Your task to perform on an android device: turn on bluetooth scan Image 0: 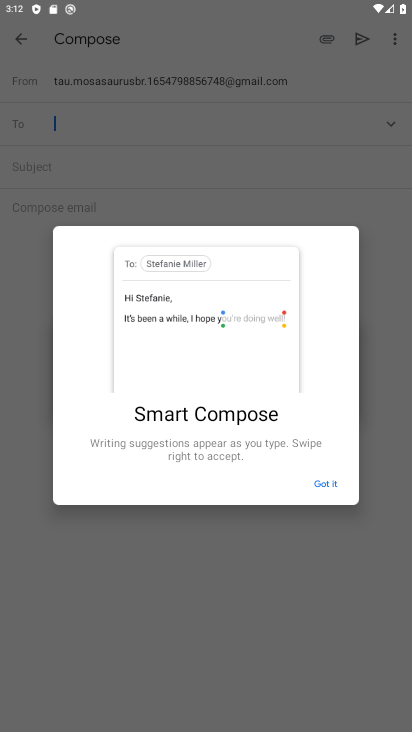
Step 0: press home button
Your task to perform on an android device: turn on bluetooth scan Image 1: 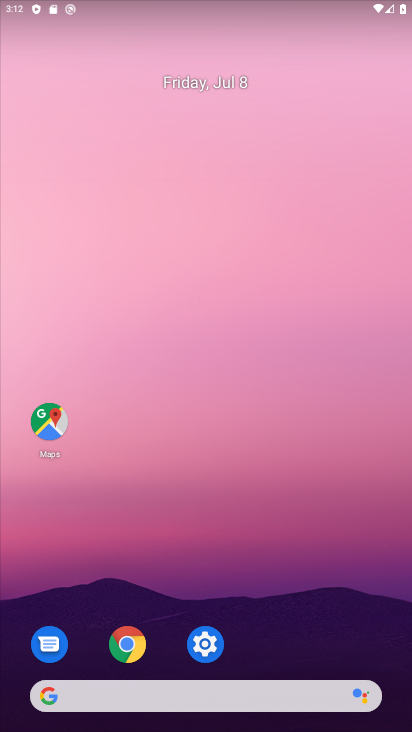
Step 1: drag from (21, 700) to (151, 152)
Your task to perform on an android device: turn on bluetooth scan Image 2: 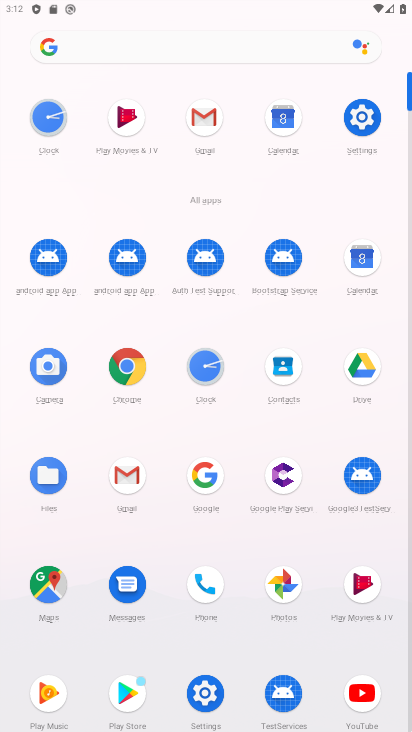
Step 2: click (207, 696)
Your task to perform on an android device: turn on bluetooth scan Image 3: 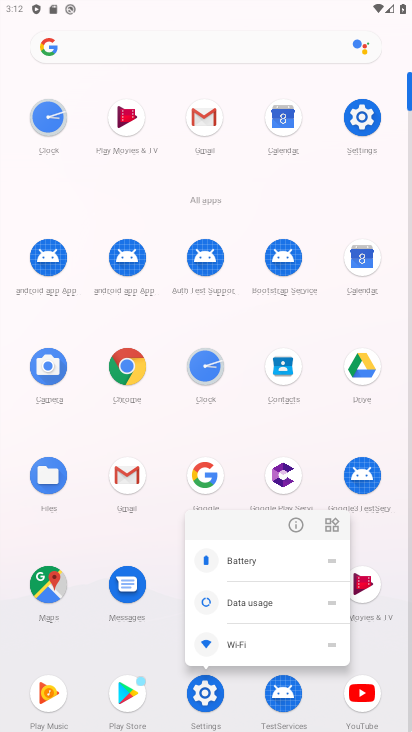
Step 3: click (207, 695)
Your task to perform on an android device: turn on bluetooth scan Image 4: 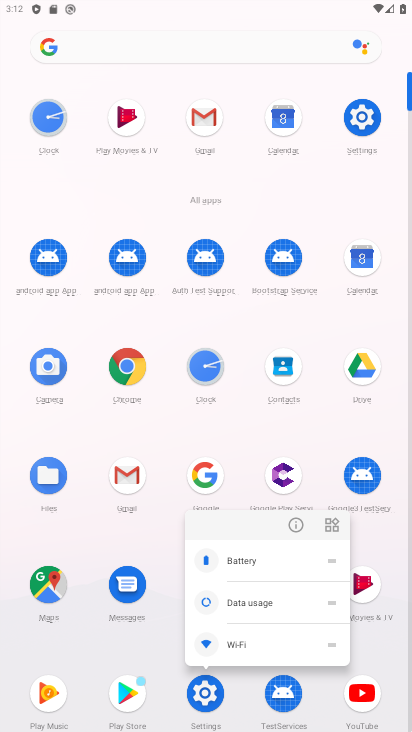
Step 4: click (207, 695)
Your task to perform on an android device: turn on bluetooth scan Image 5: 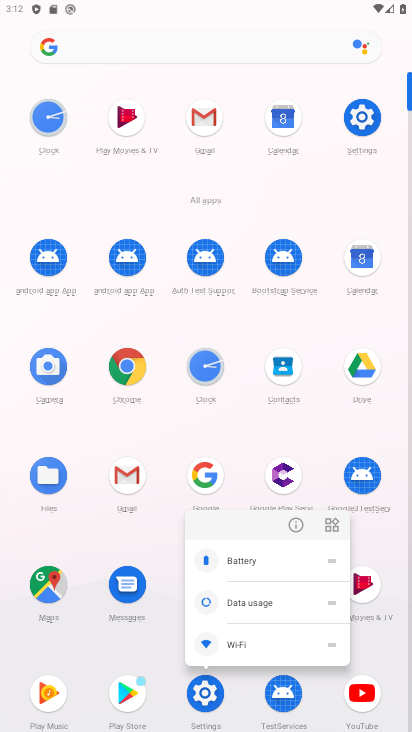
Step 5: click (201, 701)
Your task to perform on an android device: turn on bluetooth scan Image 6: 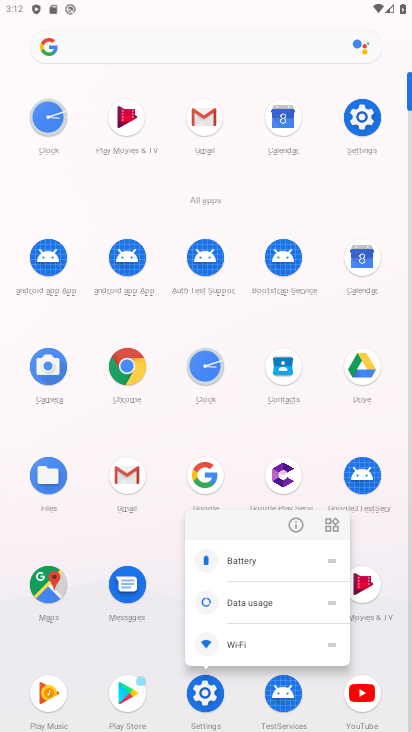
Step 6: click (201, 701)
Your task to perform on an android device: turn on bluetooth scan Image 7: 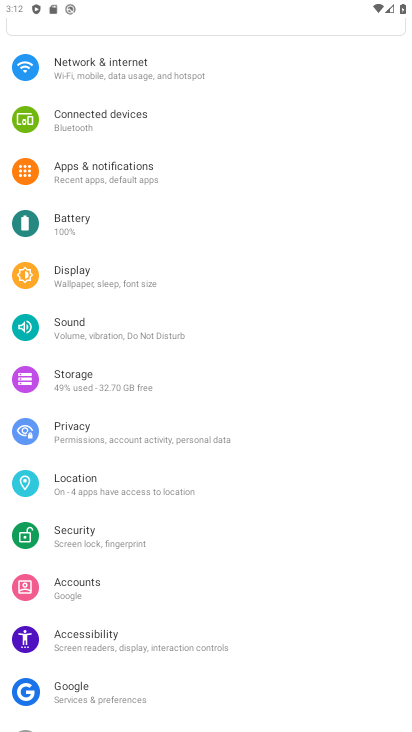
Step 7: click (121, 119)
Your task to perform on an android device: turn on bluetooth scan Image 8: 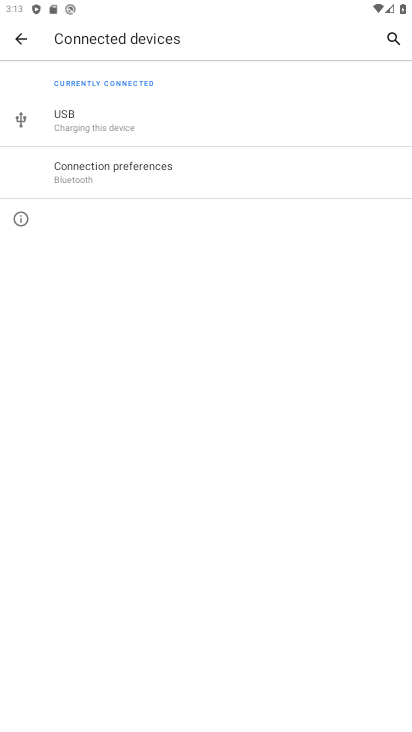
Step 8: click (124, 174)
Your task to perform on an android device: turn on bluetooth scan Image 9: 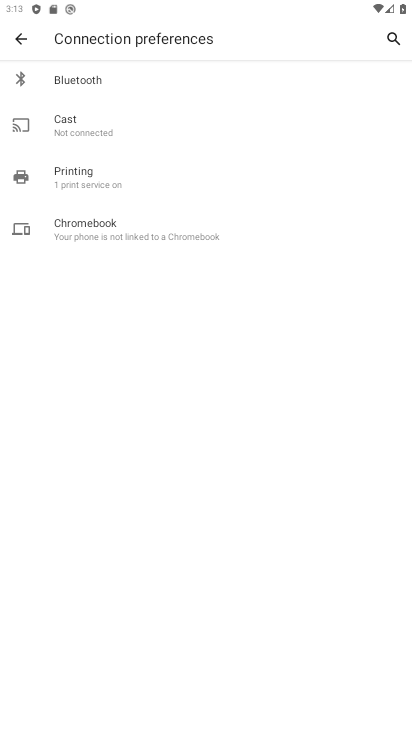
Step 9: click (85, 73)
Your task to perform on an android device: turn on bluetooth scan Image 10: 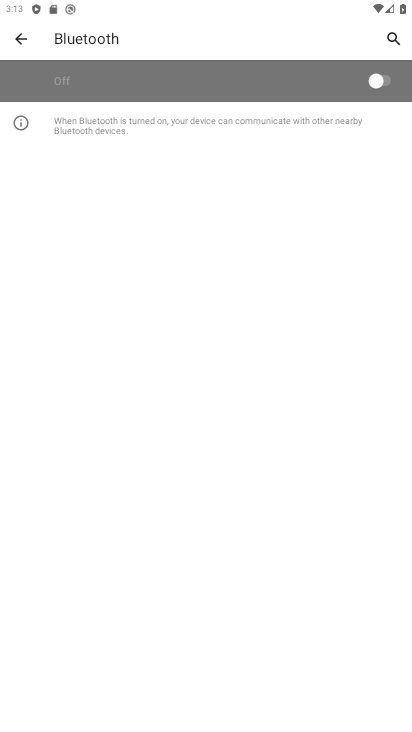
Step 10: task complete